Your task to perform on an android device: Open internet settings Image 0: 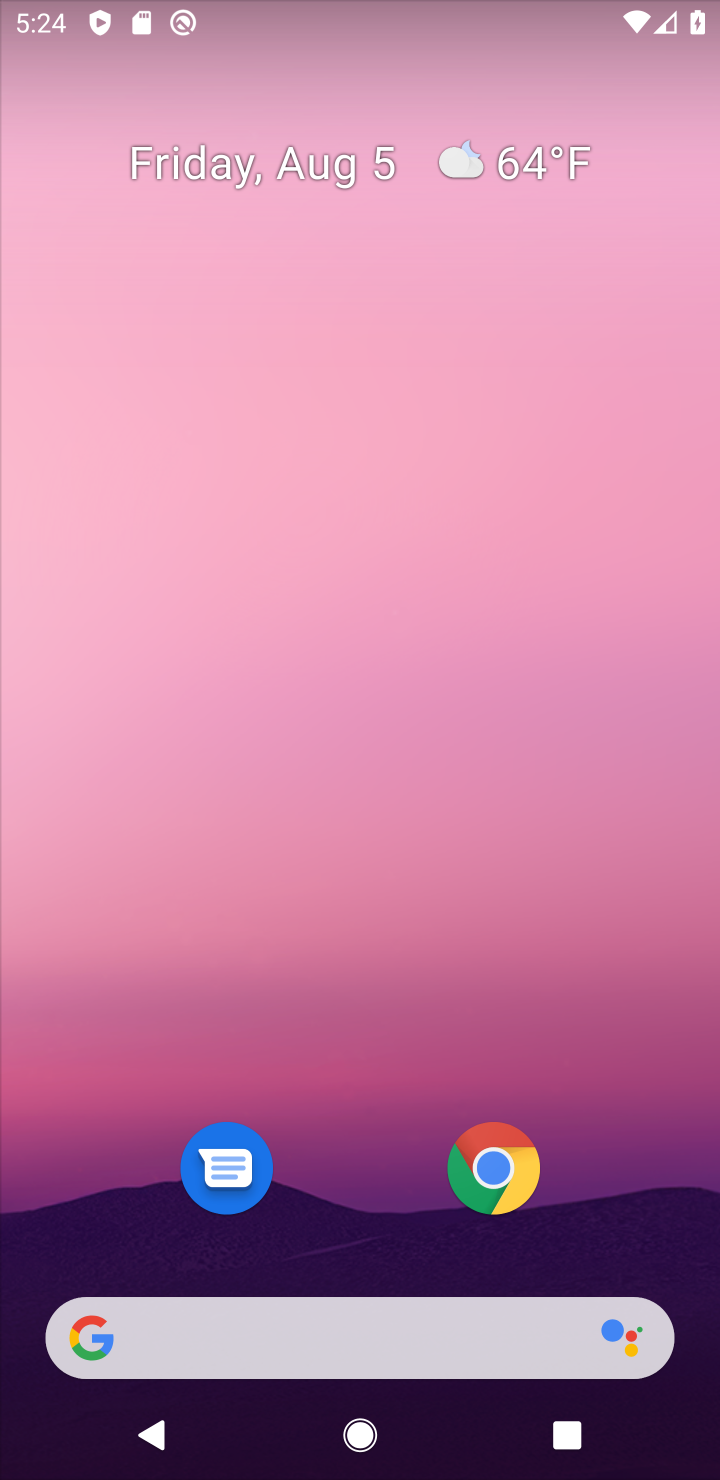
Step 0: drag from (395, 1113) to (469, 4)
Your task to perform on an android device: Open internet settings Image 1: 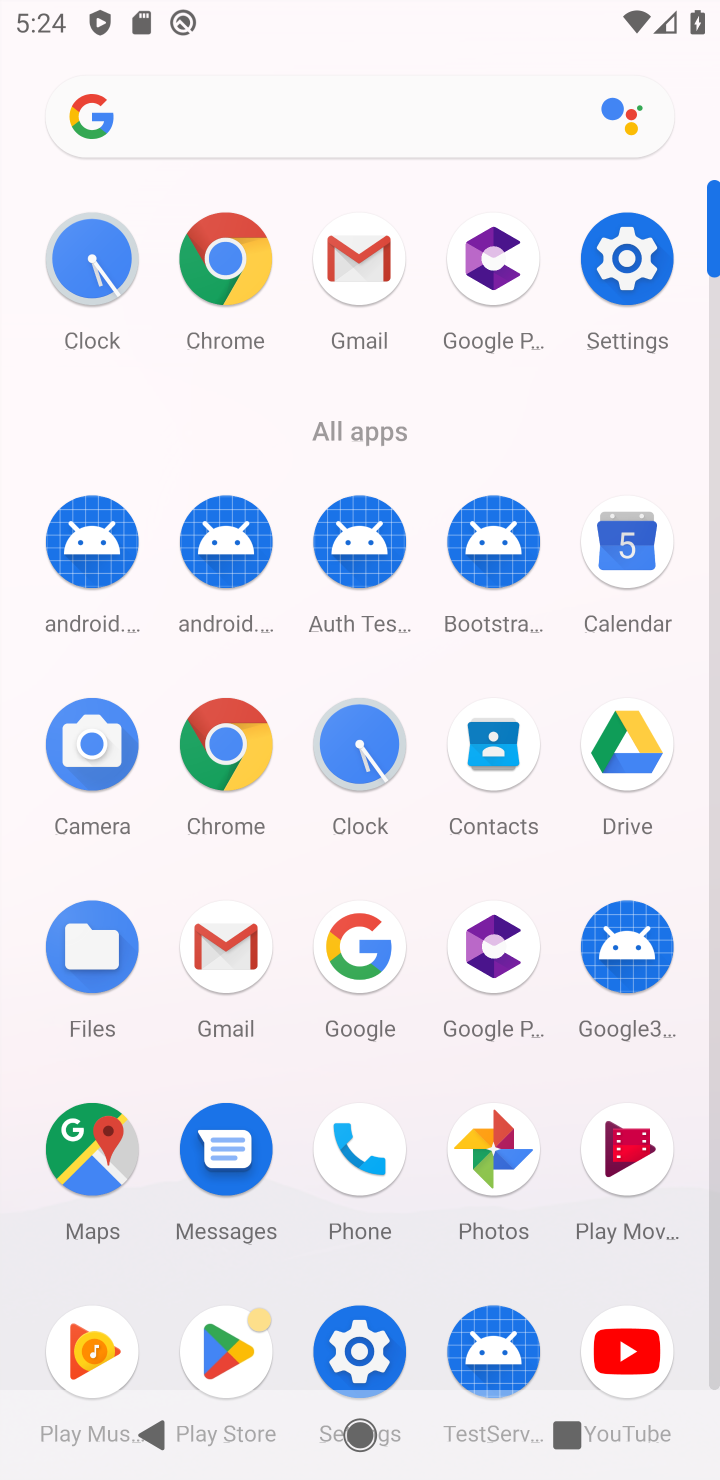
Step 1: click (605, 399)
Your task to perform on an android device: Open internet settings Image 2: 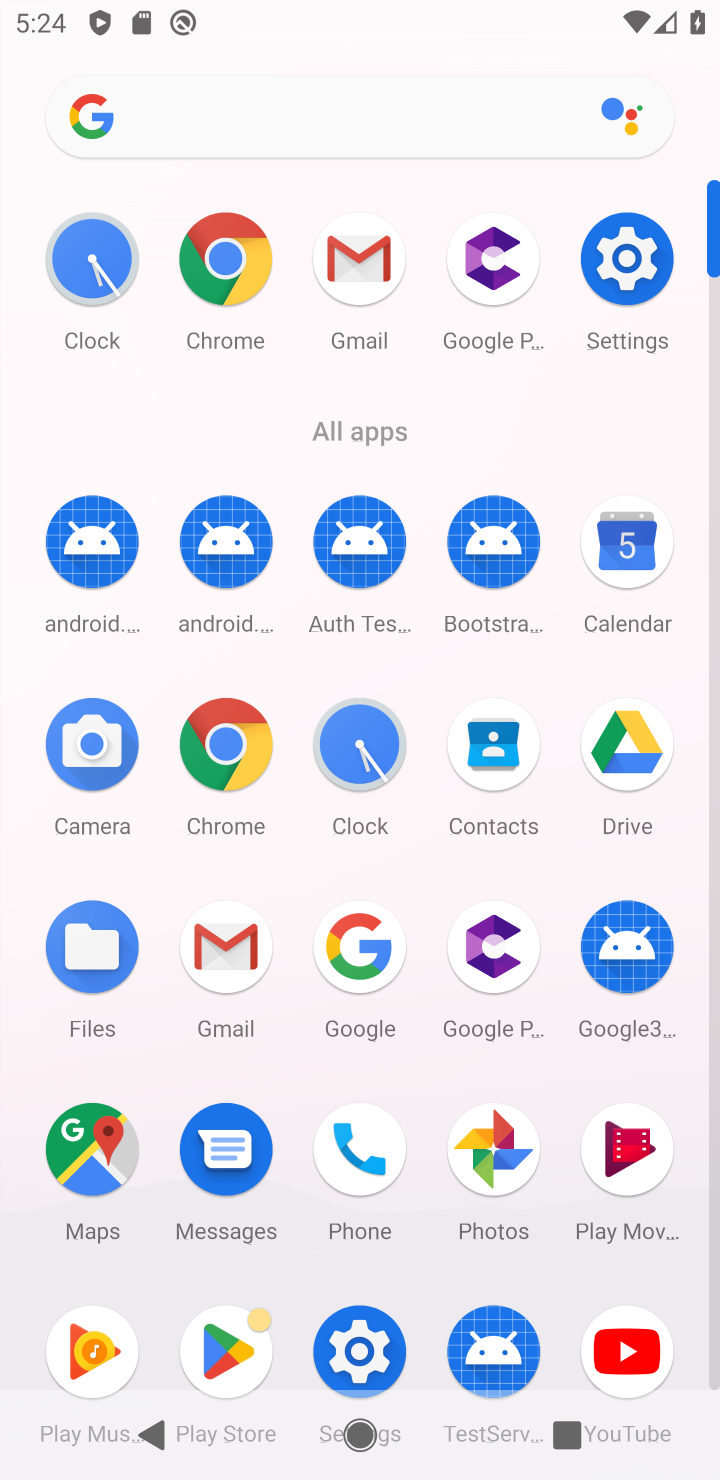
Step 2: click (614, 286)
Your task to perform on an android device: Open internet settings Image 3: 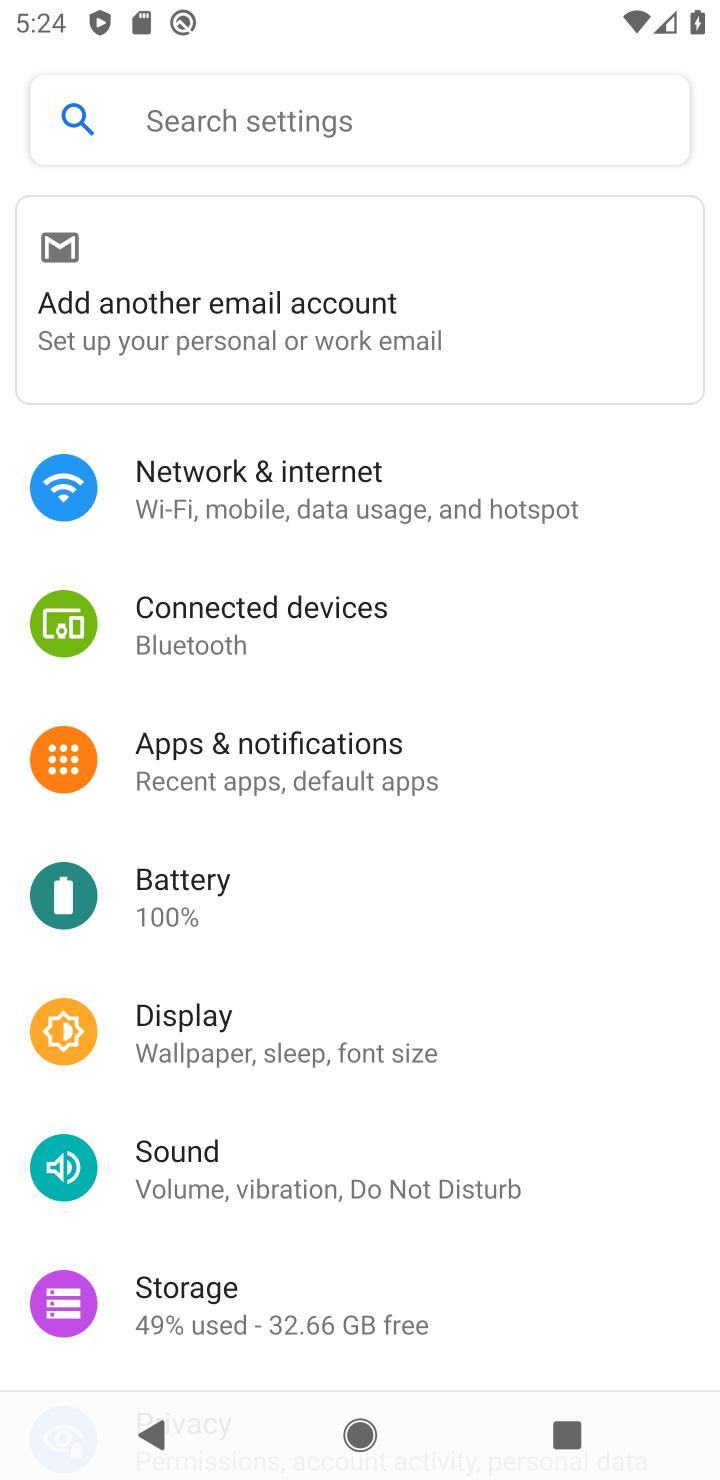
Step 3: click (326, 515)
Your task to perform on an android device: Open internet settings Image 4: 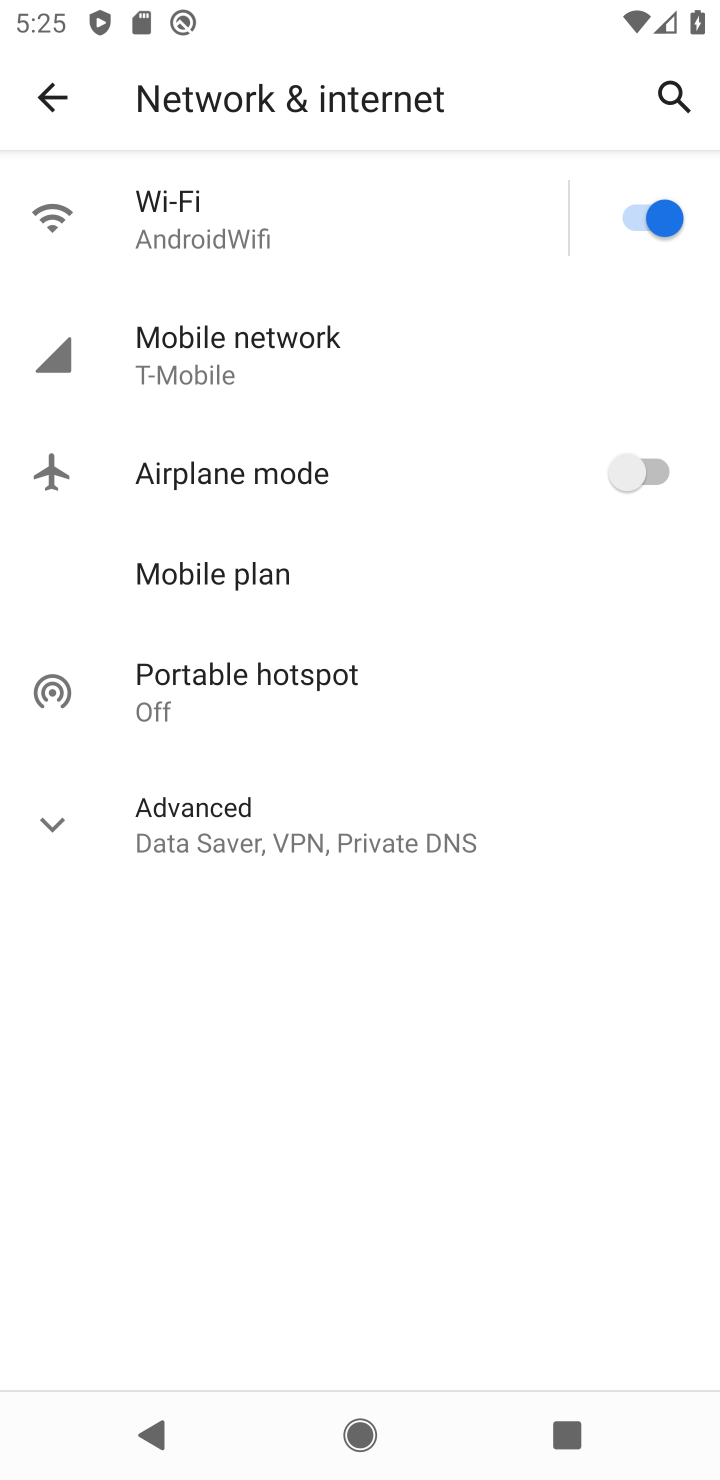
Step 4: click (190, 233)
Your task to perform on an android device: Open internet settings Image 5: 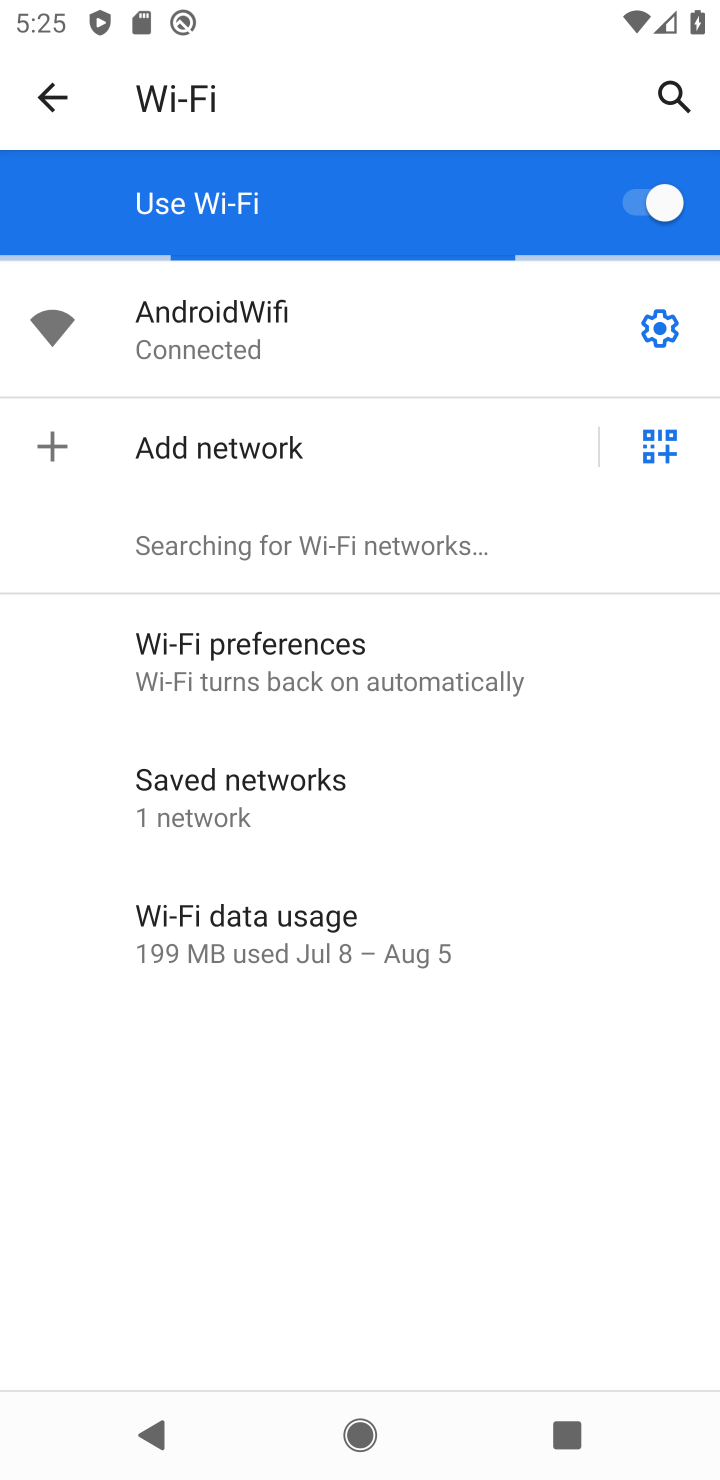
Step 5: click (186, 299)
Your task to perform on an android device: Open internet settings Image 6: 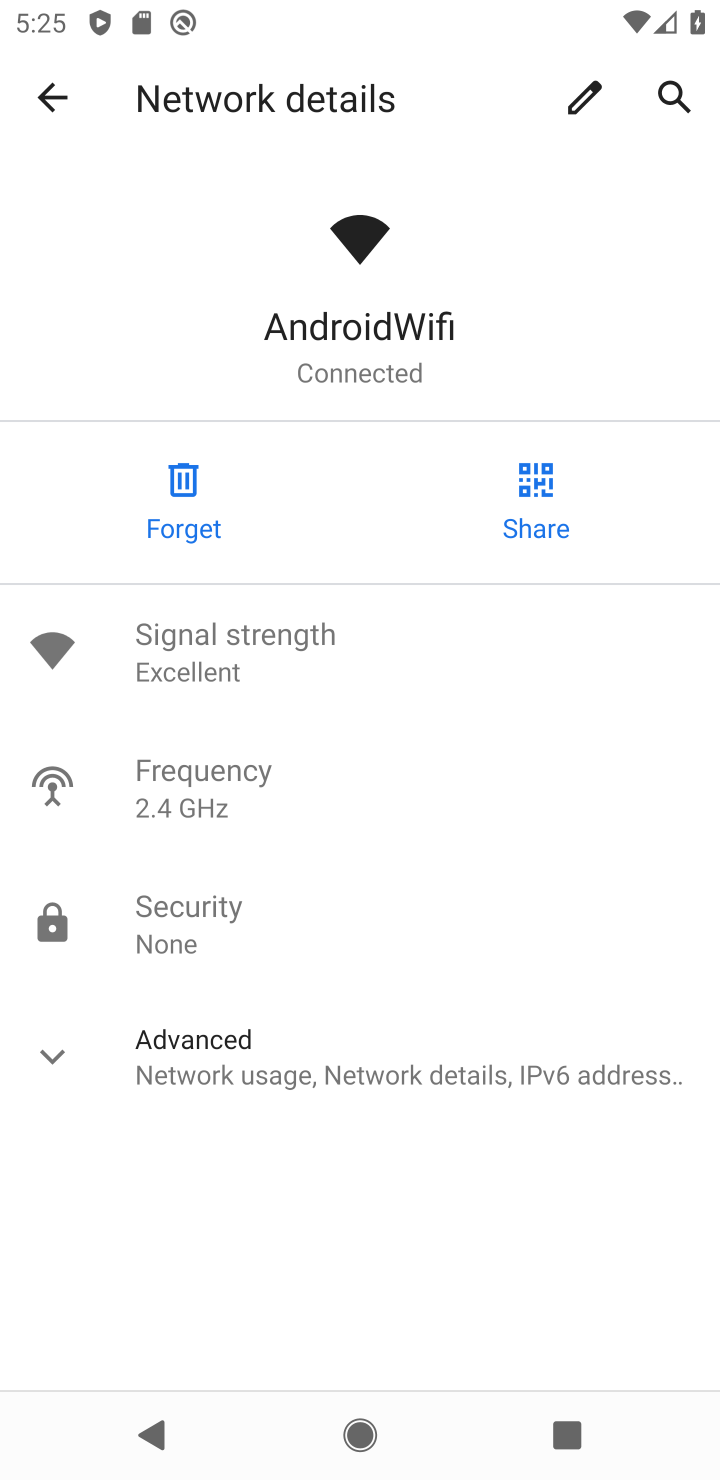
Step 6: task complete